Your task to perform on an android device: See recent photos Image 0: 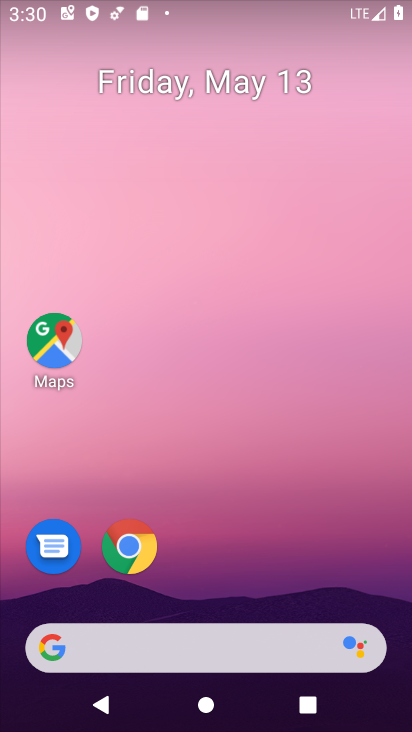
Step 0: drag from (214, 603) to (222, 43)
Your task to perform on an android device: See recent photos Image 1: 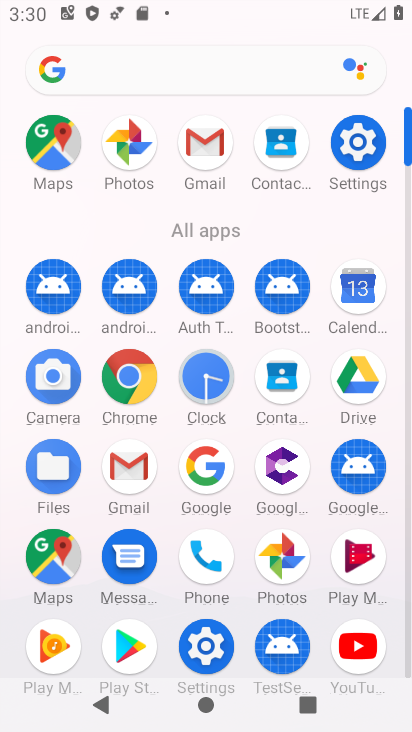
Step 1: click (123, 127)
Your task to perform on an android device: See recent photos Image 2: 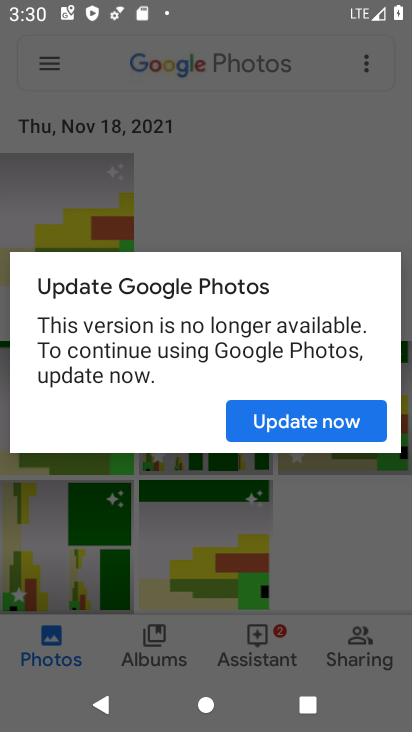
Step 2: task complete